Your task to perform on an android device: Open settings on Google Maps Image 0: 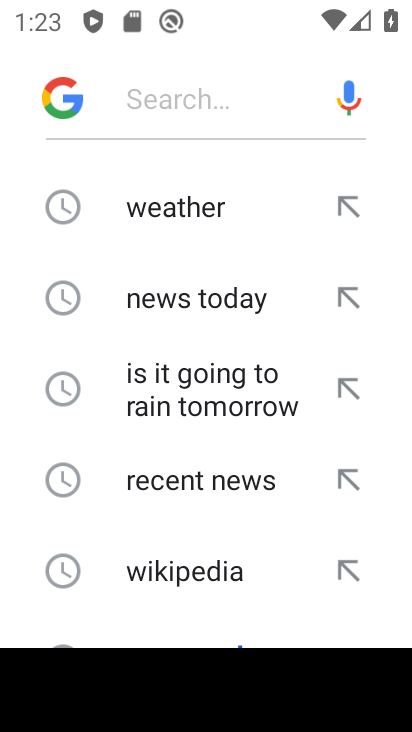
Step 0: press home button
Your task to perform on an android device: Open settings on Google Maps Image 1: 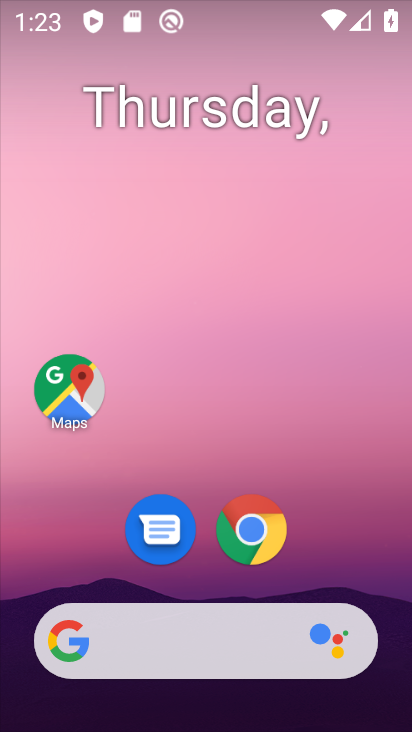
Step 1: drag from (199, 712) to (200, 100)
Your task to perform on an android device: Open settings on Google Maps Image 2: 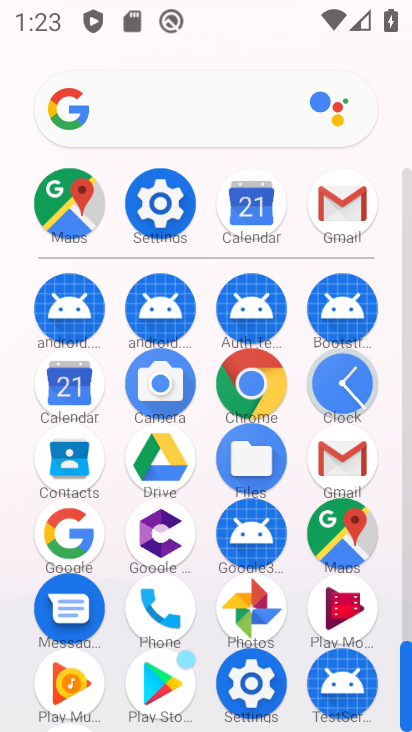
Step 2: click (339, 536)
Your task to perform on an android device: Open settings on Google Maps Image 3: 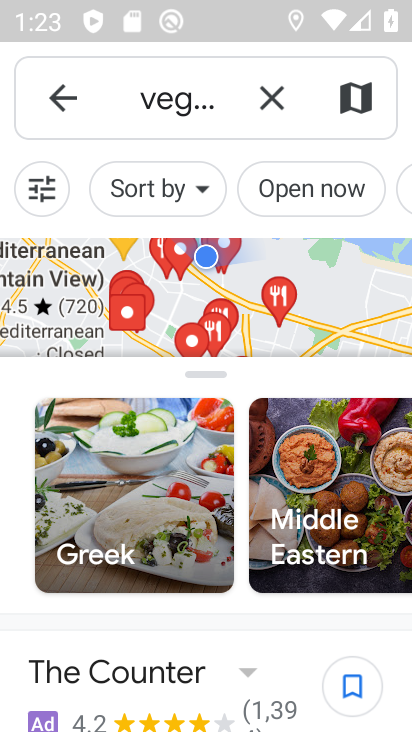
Step 3: click (59, 103)
Your task to perform on an android device: Open settings on Google Maps Image 4: 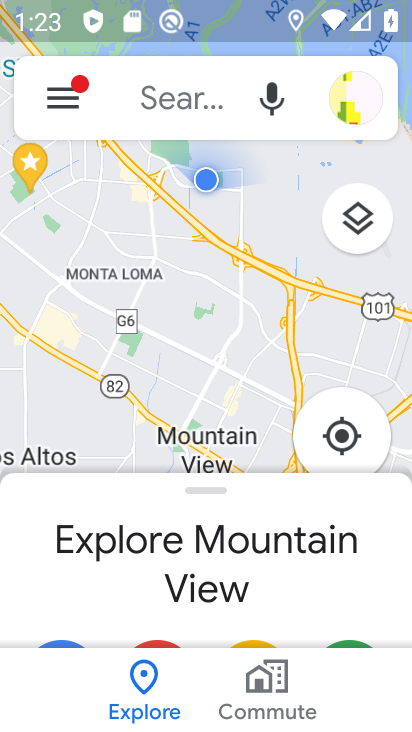
Step 4: click (56, 99)
Your task to perform on an android device: Open settings on Google Maps Image 5: 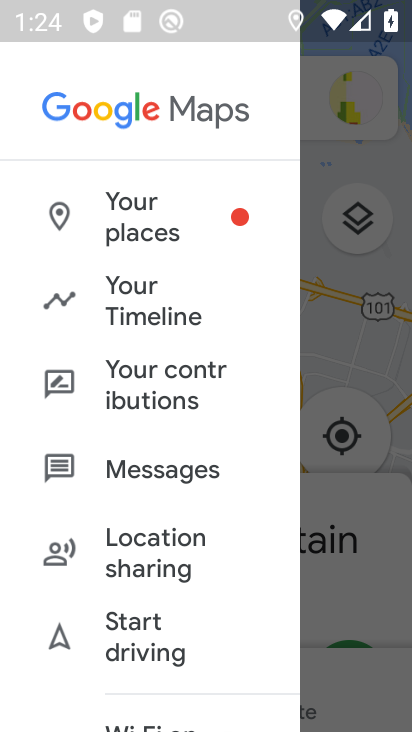
Step 5: drag from (131, 673) to (124, 225)
Your task to perform on an android device: Open settings on Google Maps Image 6: 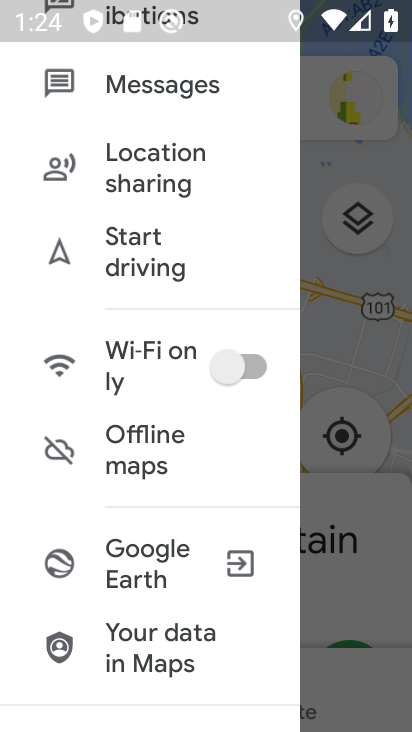
Step 6: drag from (134, 645) to (131, 154)
Your task to perform on an android device: Open settings on Google Maps Image 7: 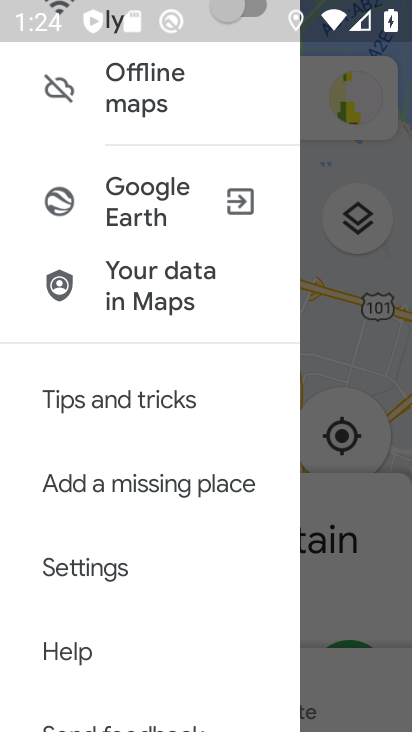
Step 7: click (106, 569)
Your task to perform on an android device: Open settings on Google Maps Image 8: 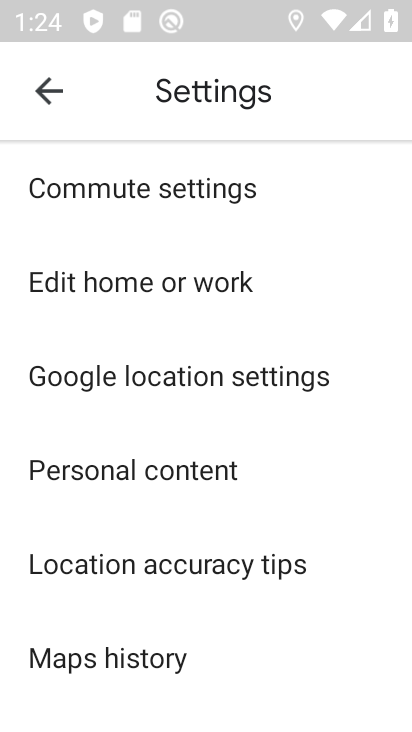
Step 8: task complete